Your task to perform on an android device: Go to Yahoo.com Image 0: 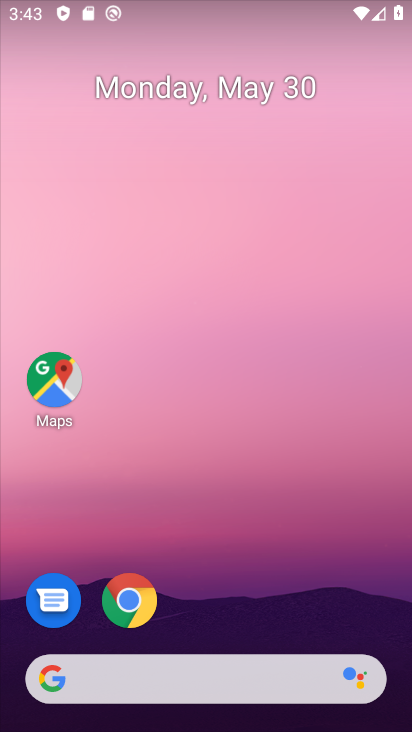
Step 0: click (149, 607)
Your task to perform on an android device: Go to Yahoo.com Image 1: 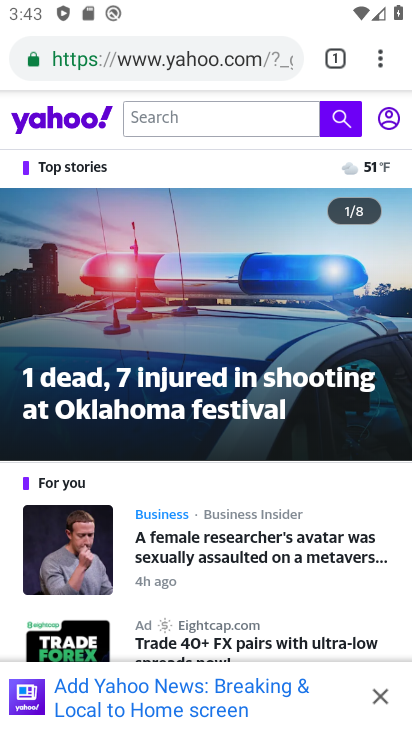
Step 1: task complete